Your task to perform on an android device: toggle wifi Image 0: 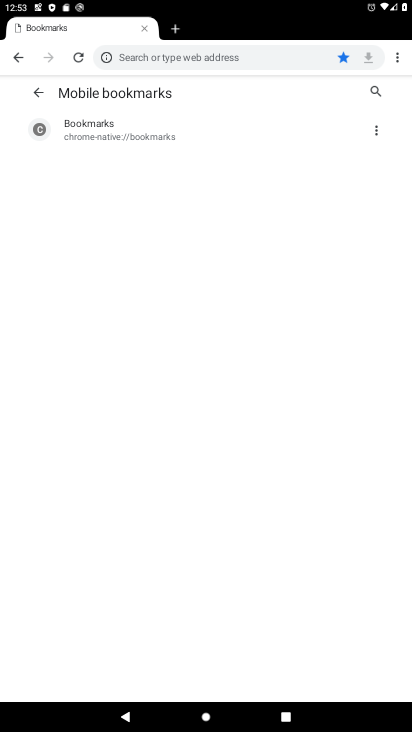
Step 0: press home button
Your task to perform on an android device: toggle wifi Image 1: 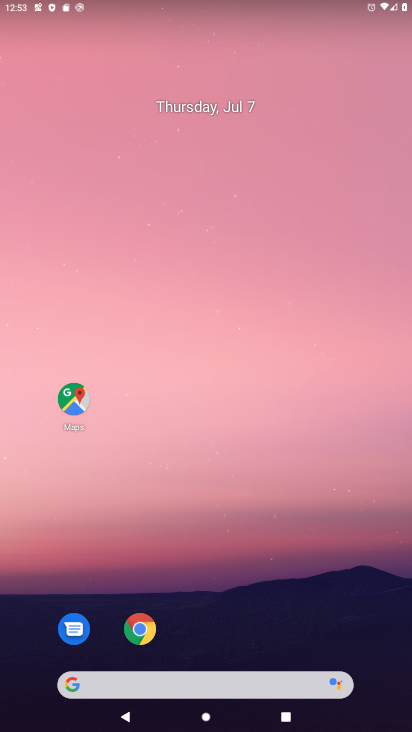
Step 1: drag from (229, 605) to (207, 166)
Your task to perform on an android device: toggle wifi Image 2: 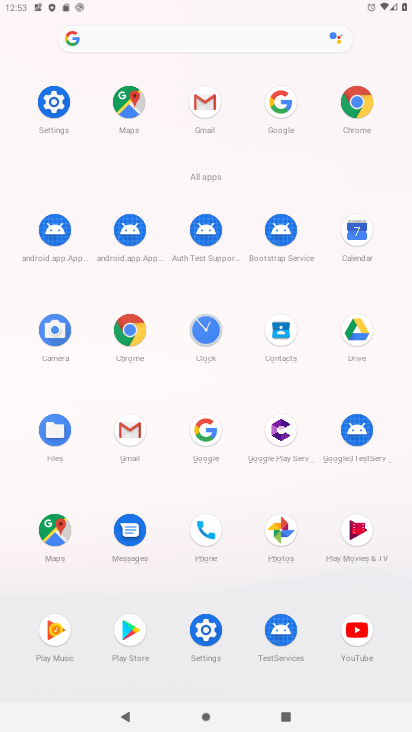
Step 2: click (53, 103)
Your task to perform on an android device: toggle wifi Image 3: 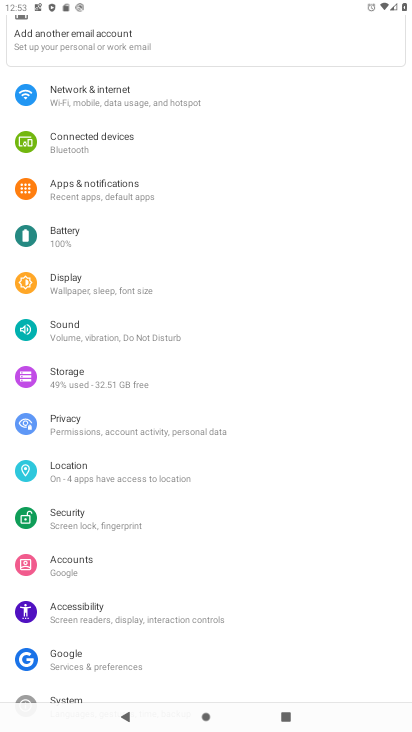
Step 3: click (103, 98)
Your task to perform on an android device: toggle wifi Image 4: 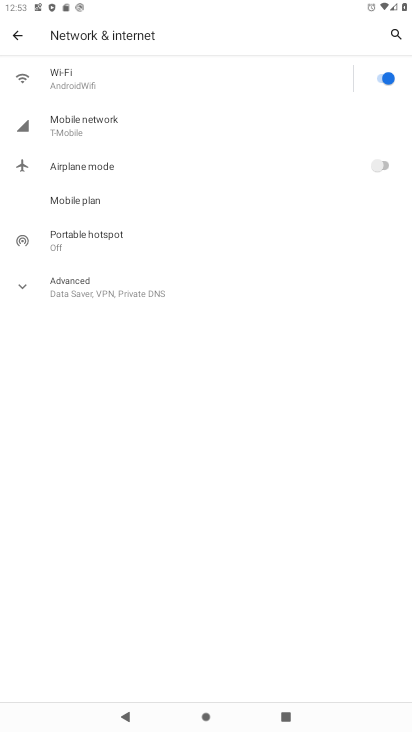
Step 4: click (383, 69)
Your task to perform on an android device: toggle wifi Image 5: 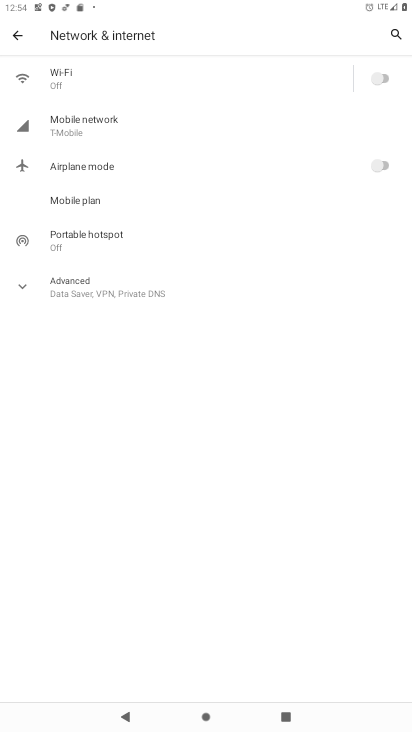
Step 5: task complete